Your task to perform on an android device: Go to eBay Image 0: 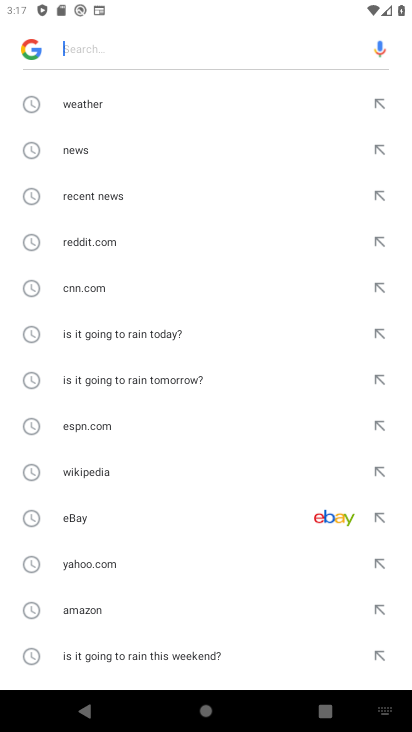
Step 0: click (79, 516)
Your task to perform on an android device: Go to eBay Image 1: 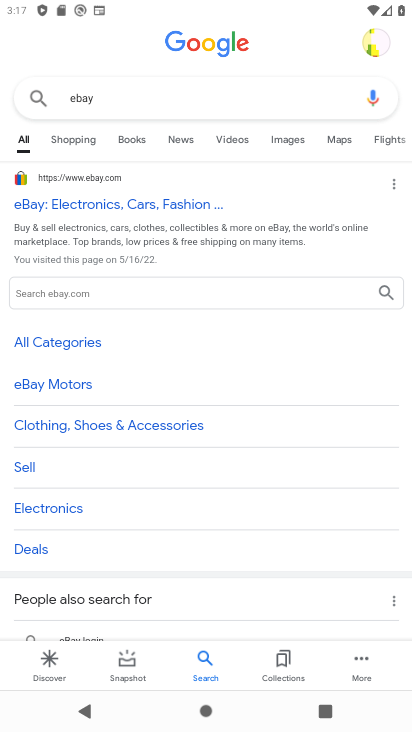
Step 1: click (54, 205)
Your task to perform on an android device: Go to eBay Image 2: 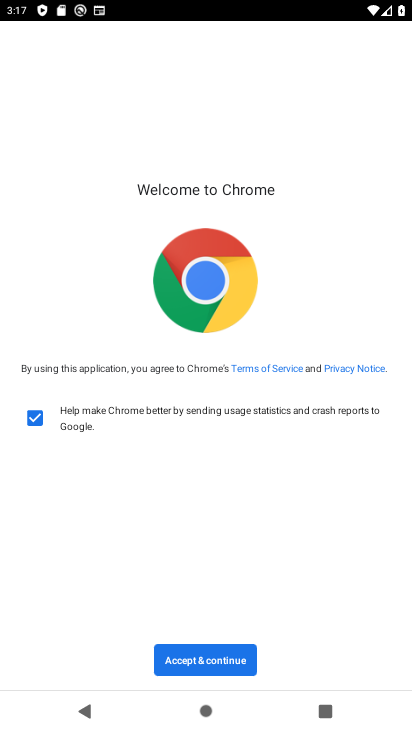
Step 2: click (179, 667)
Your task to perform on an android device: Go to eBay Image 3: 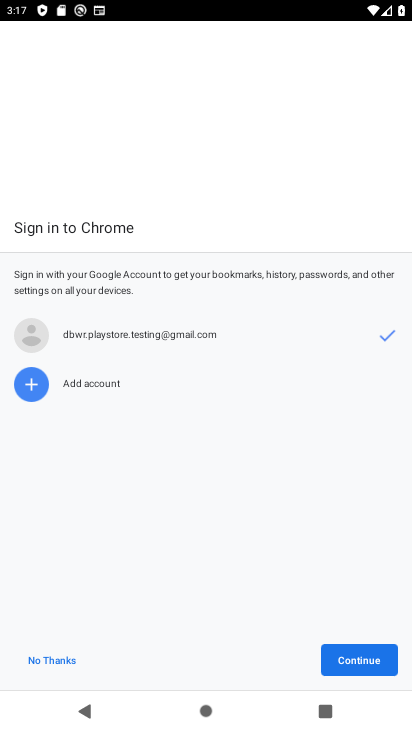
Step 3: click (56, 659)
Your task to perform on an android device: Go to eBay Image 4: 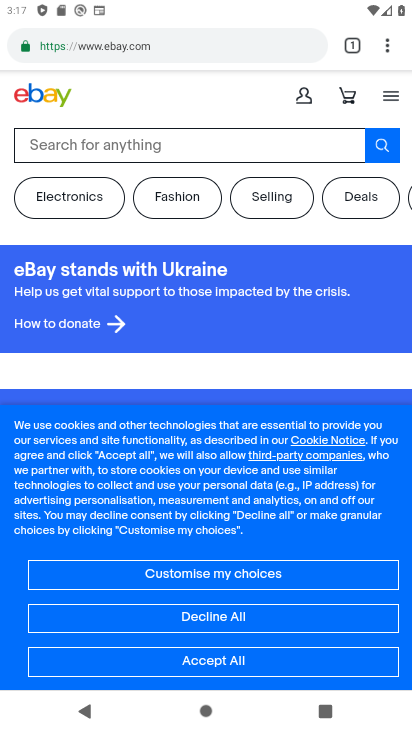
Step 4: task complete